Your task to perform on an android device: see tabs open on other devices in the chrome app Image 0: 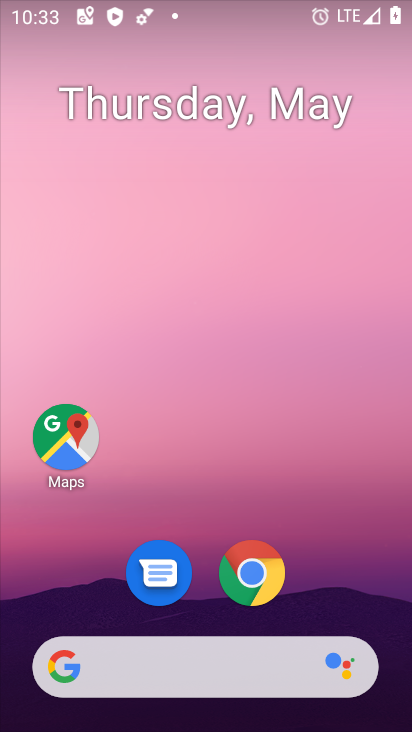
Step 0: click (236, 593)
Your task to perform on an android device: see tabs open on other devices in the chrome app Image 1: 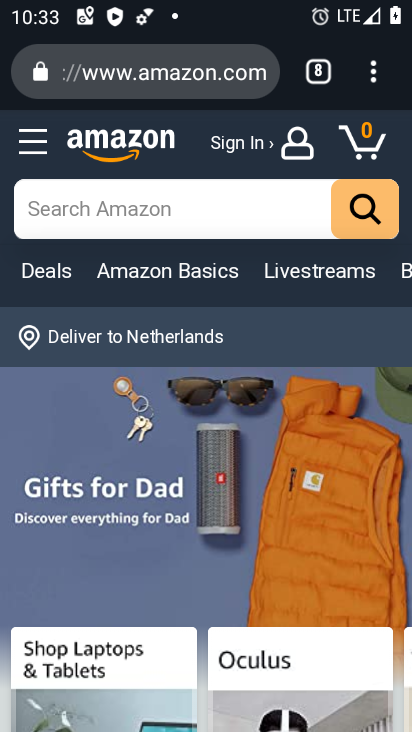
Step 1: click (372, 64)
Your task to perform on an android device: see tabs open on other devices in the chrome app Image 2: 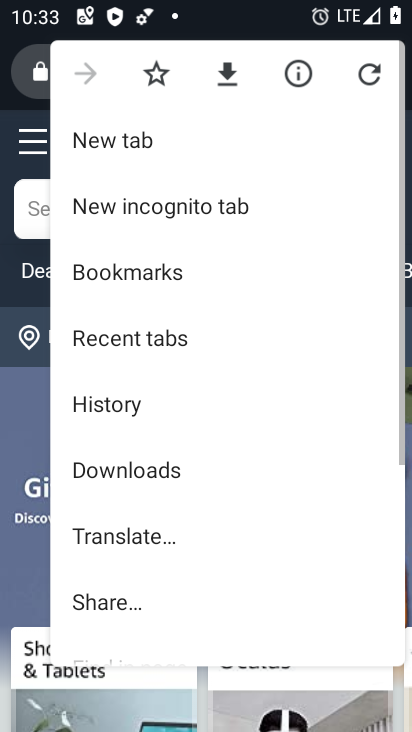
Step 2: drag from (211, 555) to (264, 216)
Your task to perform on an android device: see tabs open on other devices in the chrome app Image 3: 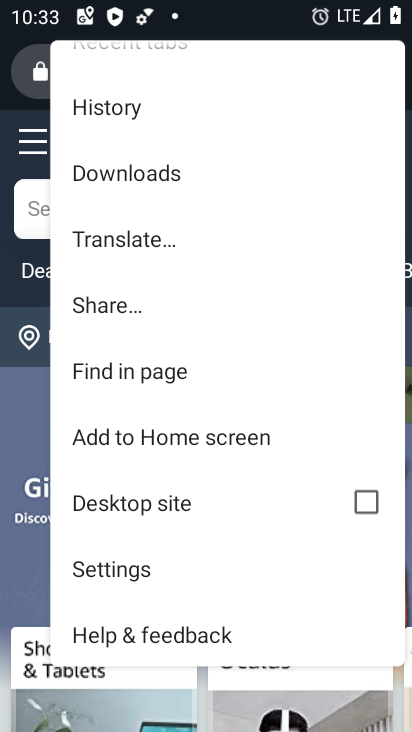
Step 3: drag from (178, 167) to (188, 454)
Your task to perform on an android device: see tabs open on other devices in the chrome app Image 4: 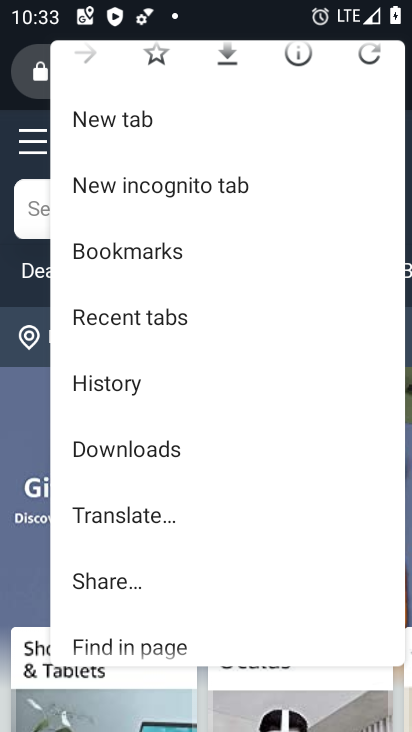
Step 4: click (187, 311)
Your task to perform on an android device: see tabs open on other devices in the chrome app Image 5: 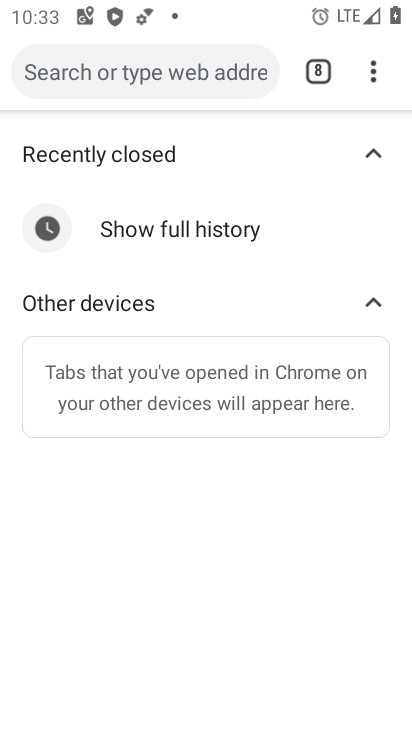
Step 5: task complete